Your task to perform on an android device: turn pop-ups on in chrome Image 0: 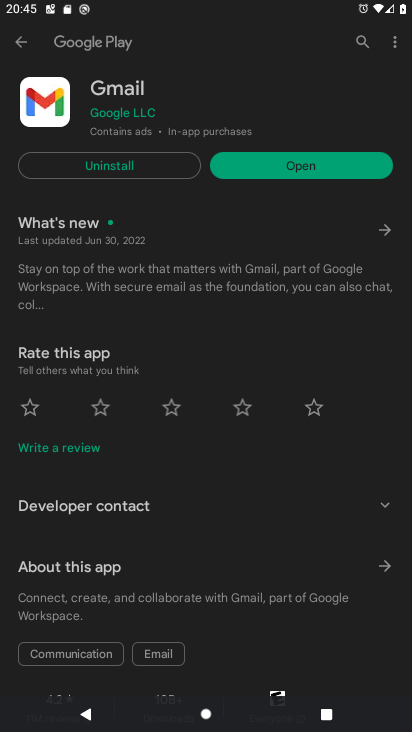
Step 0: press home button
Your task to perform on an android device: turn pop-ups on in chrome Image 1: 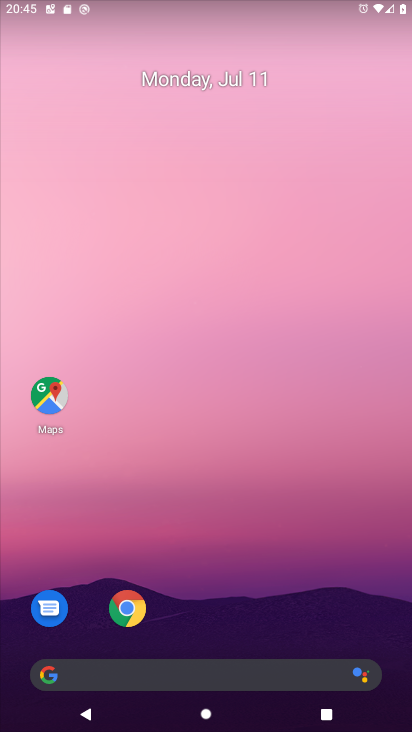
Step 1: click (135, 624)
Your task to perform on an android device: turn pop-ups on in chrome Image 2: 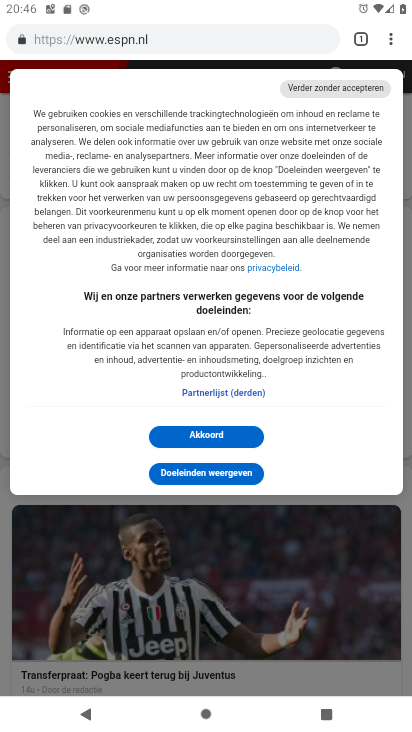
Step 2: click (391, 45)
Your task to perform on an android device: turn pop-ups on in chrome Image 3: 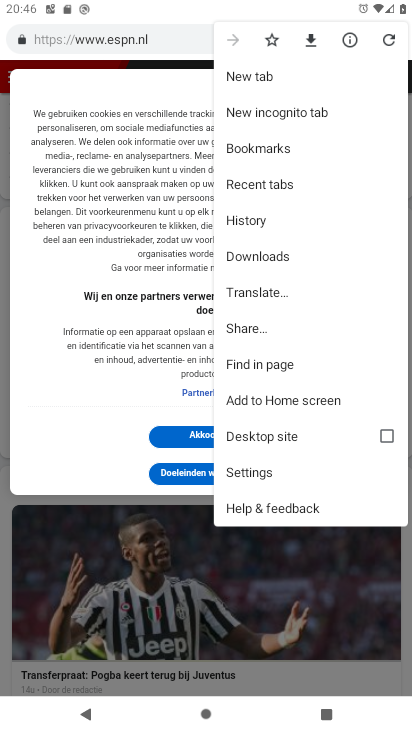
Step 3: click (251, 460)
Your task to perform on an android device: turn pop-ups on in chrome Image 4: 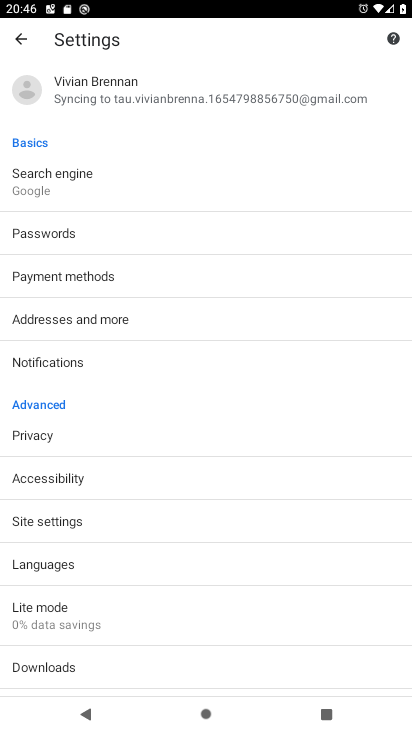
Step 4: click (125, 522)
Your task to perform on an android device: turn pop-ups on in chrome Image 5: 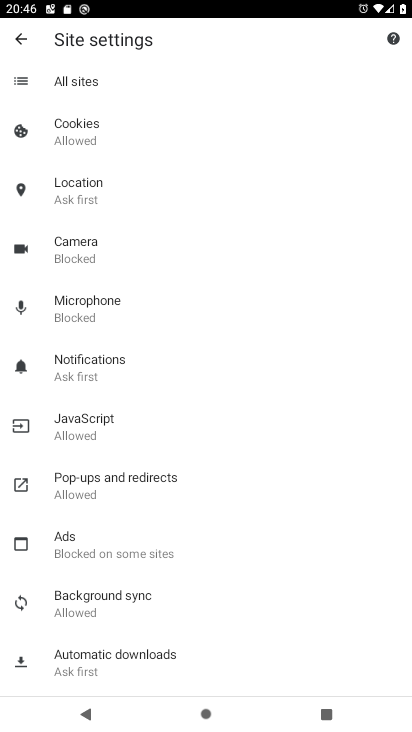
Step 5: click (134, 485)
Your task to perform on an android device: turn pop-ups on in chrome Image 6: 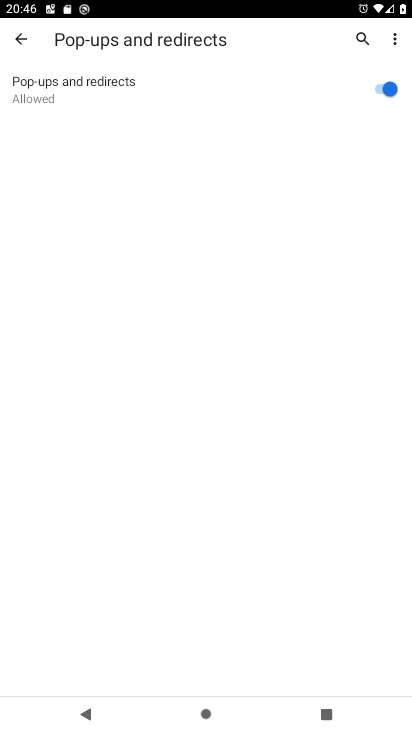
Step 6: click (403, 73)
Your task to perform on an android device: turn pop-ups on in chrome Image 7: 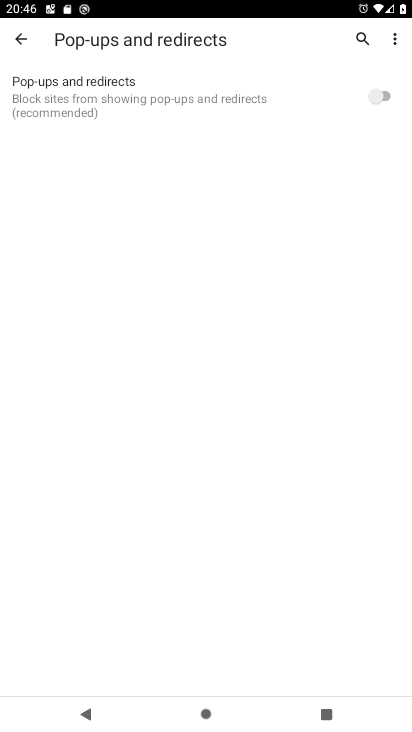
Step 7: task complete